Your task to perform on an android device: delete a single message in the gmail app Image 0: 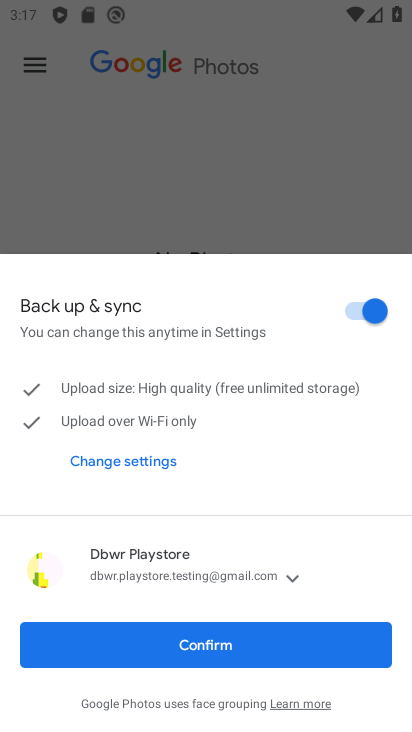
Step 0: press home button
Your task to perform on an android device: delete a single message in the gmail app Image 1: 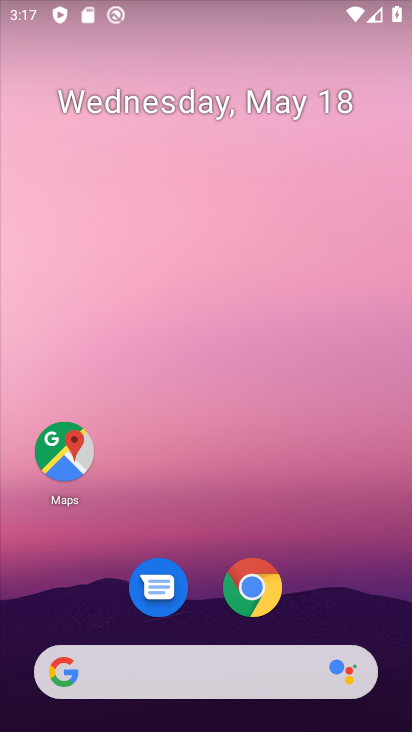
Step 1: drag from (301, 514) to (287, 91)
Your task to perform on an android device: delete a single message in the gmail app Image 2: 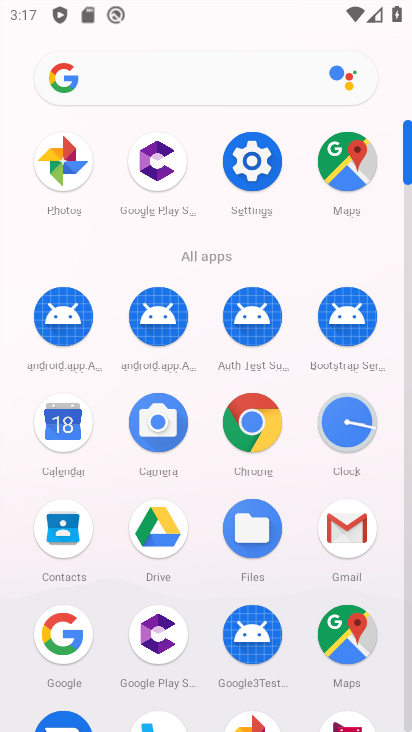
Step 2: click (349, 527)
Your task to perform on an android device: delete a single message in the gmail app Image 3: 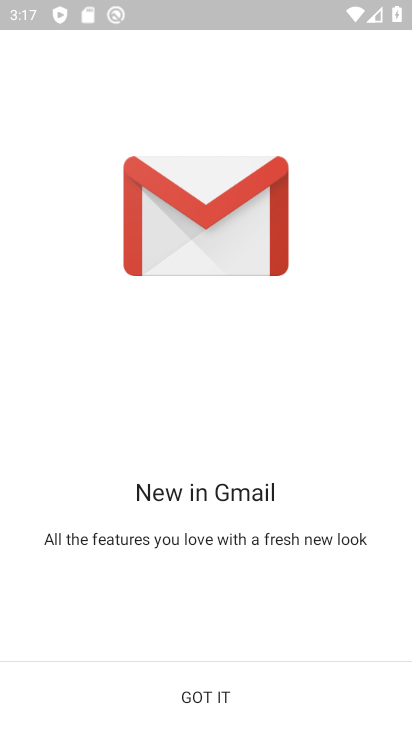
Step 3: click (202, 689)
Your task to perform on an android device: delete a single message in the gmail app Image 4: 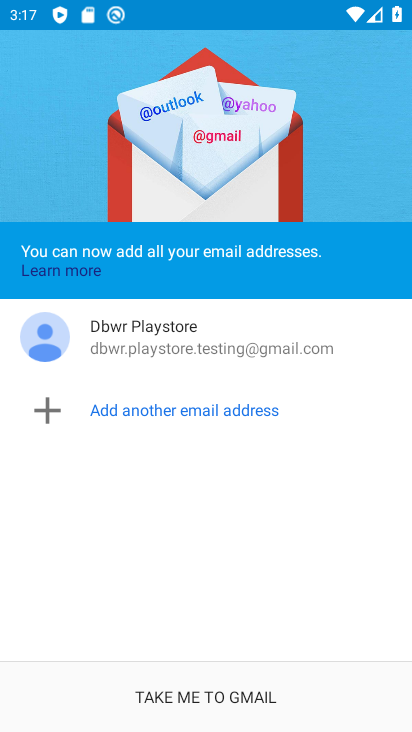
Step 4: click (203, 687)
Your task to perform on an android device: delete a single message in the gmail app Image 5: 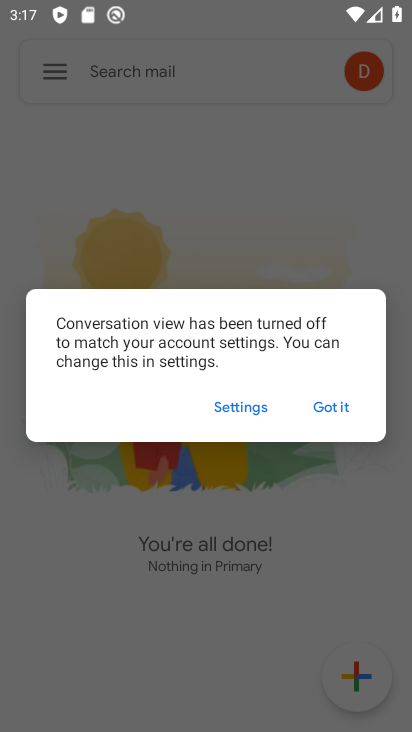
Step 5: click (336, 403)
Your task to perform on an android device: delete a single message in the gmail app Image 6: 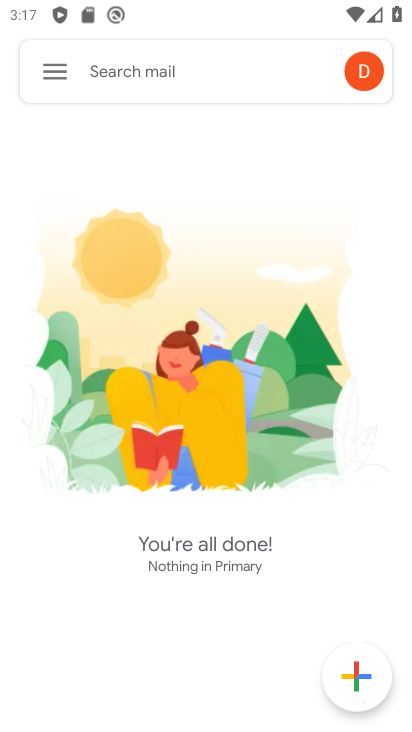
Step 6: click (70, 68)
Your task to perform on an android device: delete a single message in the gmail app Image 7: 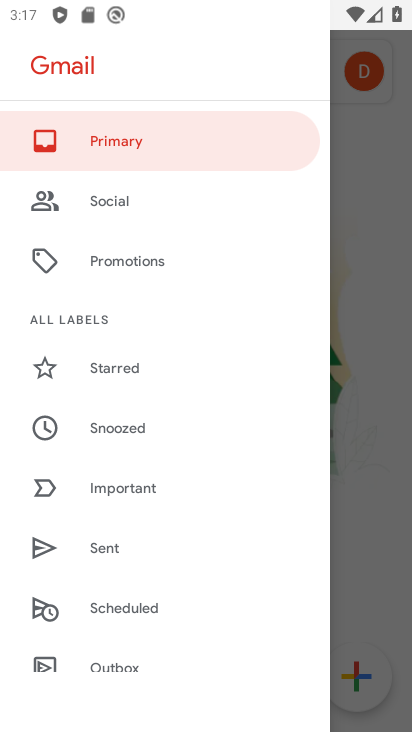
Step 7: drag from (164, 541) to (260, 265)
Your task to perform on an android device: delete a single message in the gmail app Image 8: 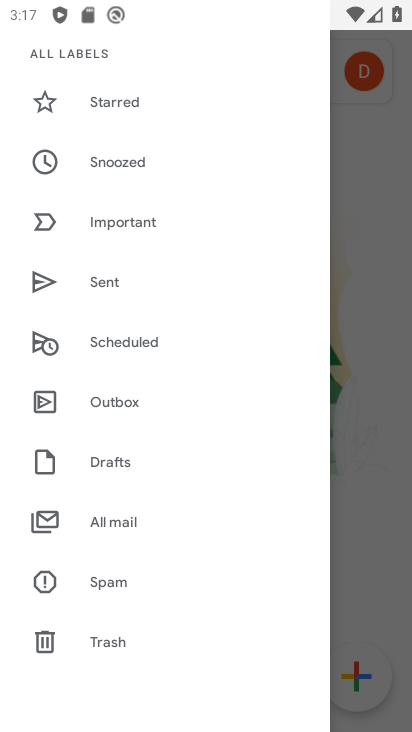
Step 8: click (122, 522)
Your task to perform on an android device: delete a single message in the gmail app Image 9: 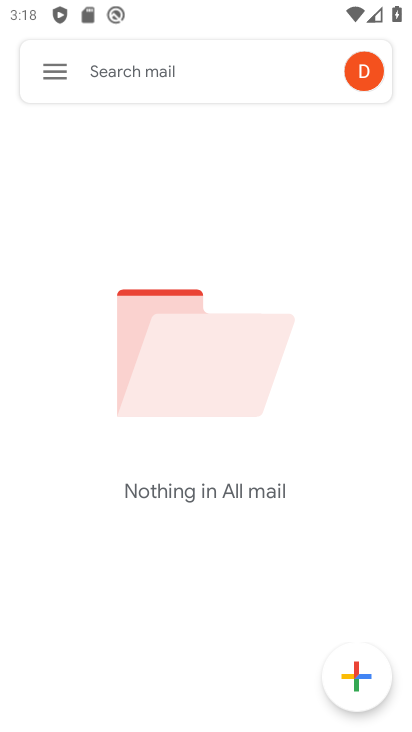
Step 9: task complete